Your task to perform on an android device: move a message to another label in the gmail app Image 0: 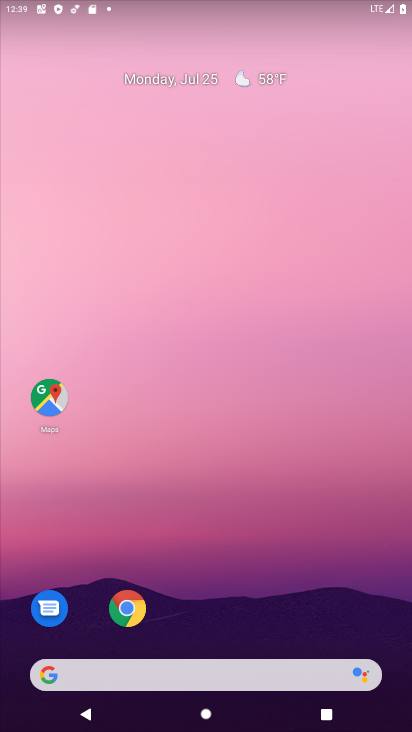
Step 0: drag from (218, 672) to (260, 0)
Your task to perform on an android device: move a message to another label in the gmail app Image 1: 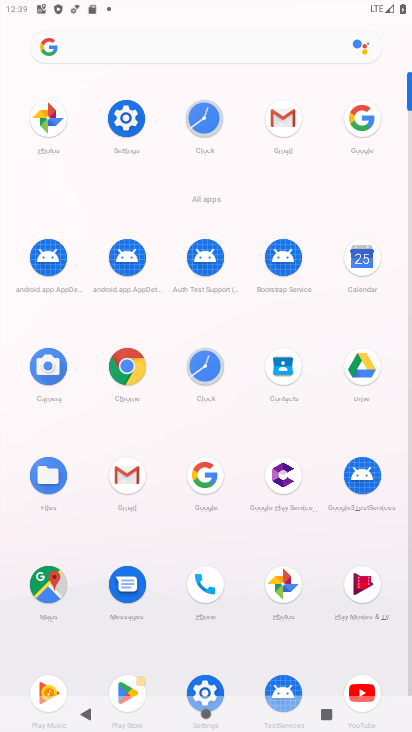
Step 1: click (283, 118)
Your task to perform on an android device: move a message to another label in the gmail app Image 2: 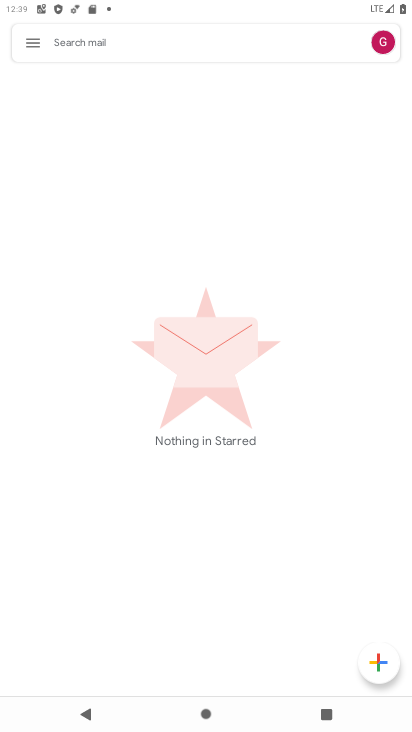
Step 2: click (30, 37)
Your task to perform on an android device: move a message to another label in the gmail app Image 3: 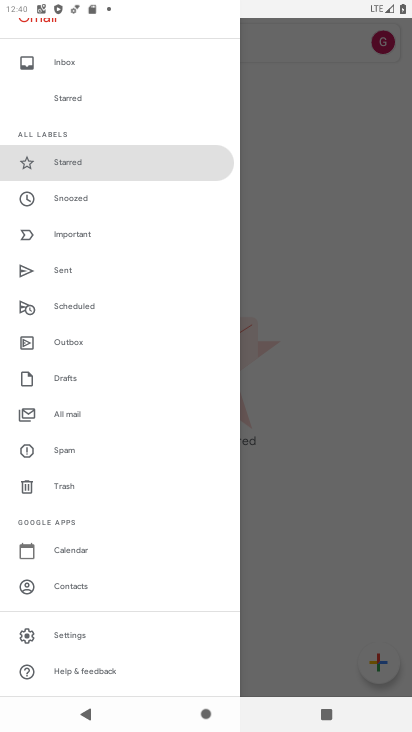
Step 3: click (70, 58)
Your task to perform on an android device: move a message to another label in the gmail app Image 4: 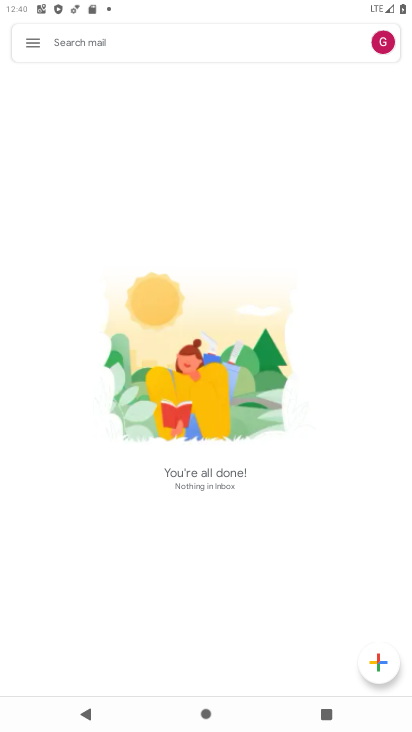
Step 4: click (33, 43)
Your task to perform on an android device: move a message to another label in the gmail app Image 5: 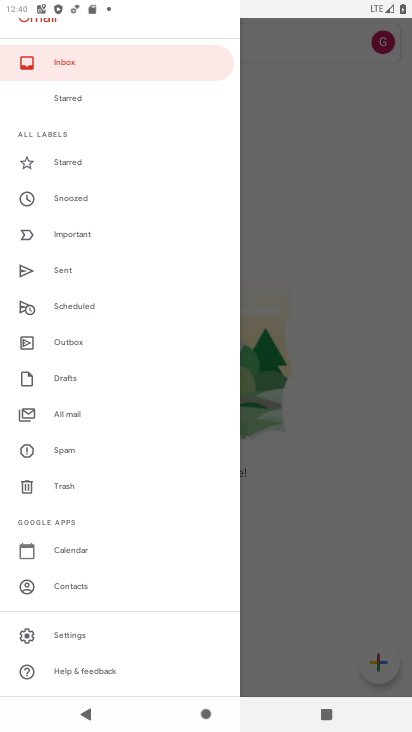
Step 5: click (57, 97)
Your task to perform on an android device: move a message to another label in the gmail app Image 6: 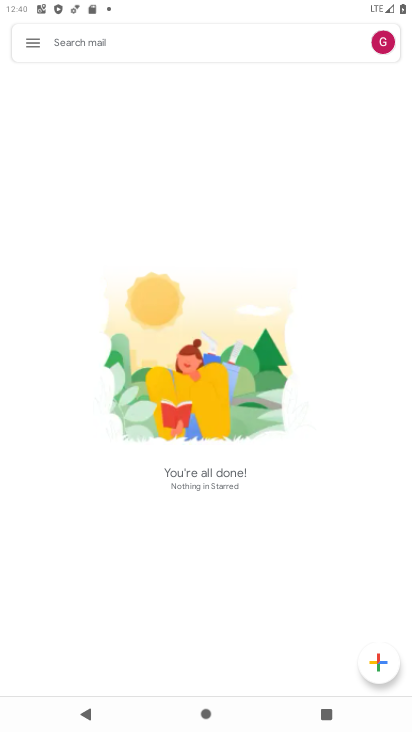
Step 6: click (29, 42)
Your task to perform on an android device: move a message to another label in the gmail app Image 7: 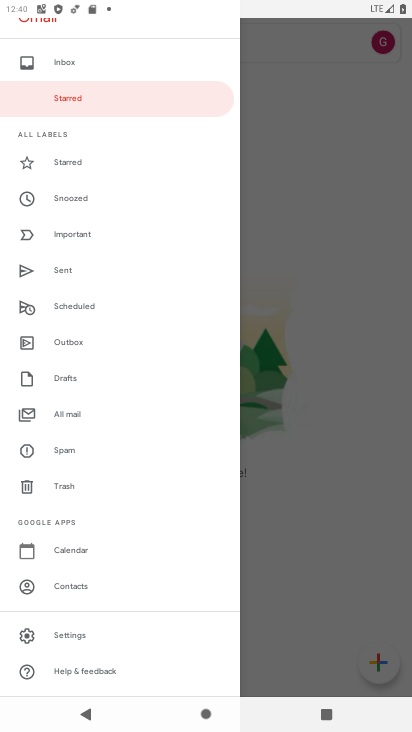
Step 7: click (66, 165)
Your task to perform on an android device: move a message to another label in the gmail app Image 8: 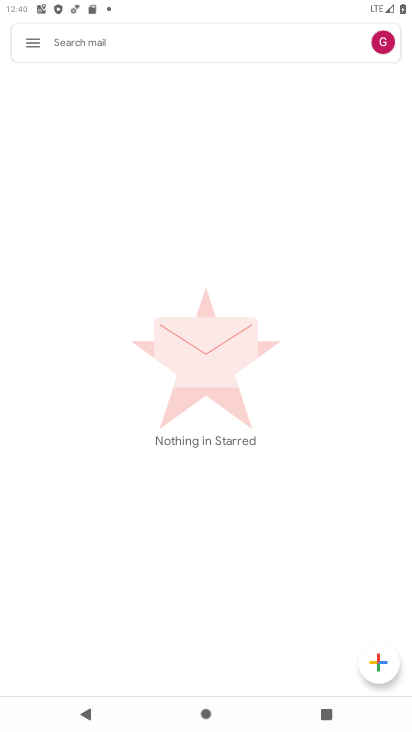
Step 8: click (33, 46)
Your task to perform on an android device: move a message to another label in the gmail app Image 9: 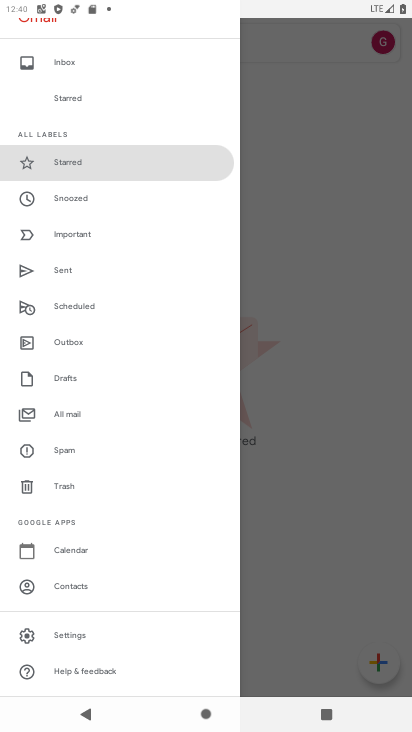
Step 9: click (71, 198)
Your task to perform on an android device: move a message to another label in the gmail app Image 10: 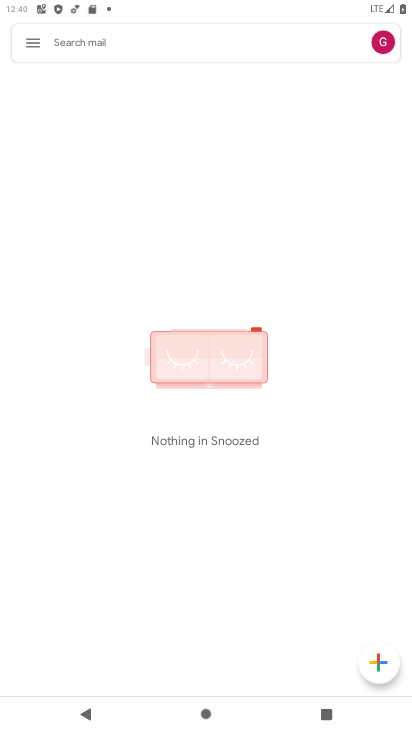
Step 10: click (36, 45)
Your task to perform on an android device: move a message to another label in the gmail app Image 11: 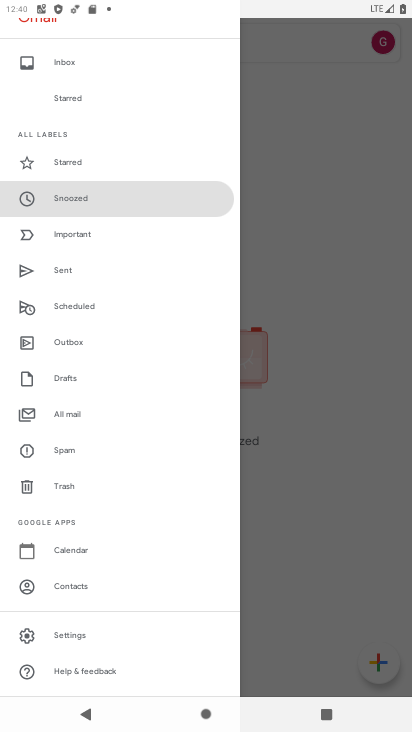
Step 11: click (79, 233)
Your task to perform on an android device: move a message to another label in the gmail app Image 12: 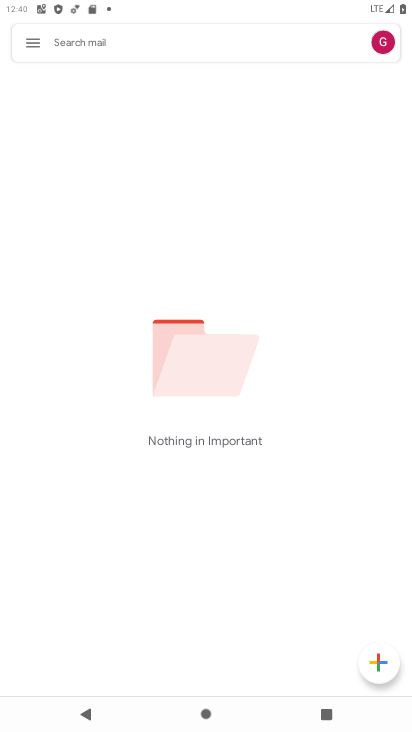
Step 12: click (33, 44)
Your task to perform on an android device: move a message to another label in the gmail app Image 13: 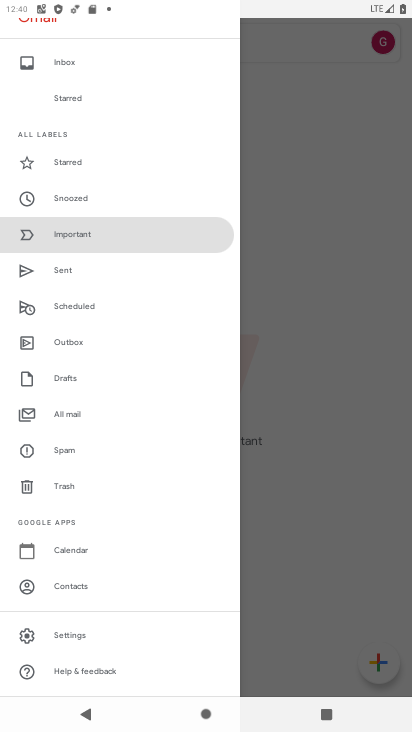
Step 13: click (58, 269)
Your task to perform on an android device: move a message to another label in the gmail app Image 14: 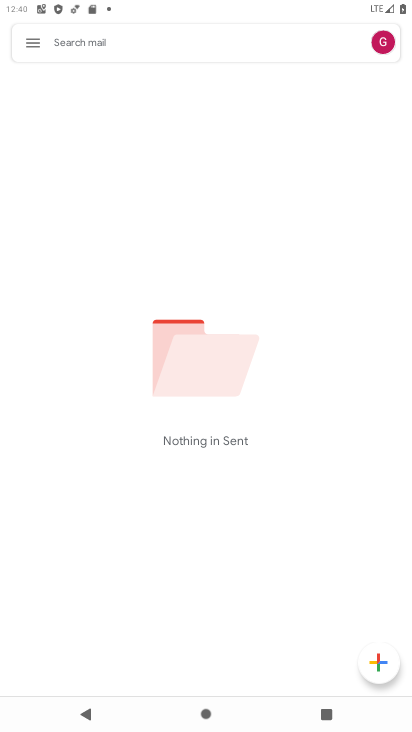
Step 14: click (33, 46)
Your task to perform on an android device: move a message to another label in the gmail app Image 15: 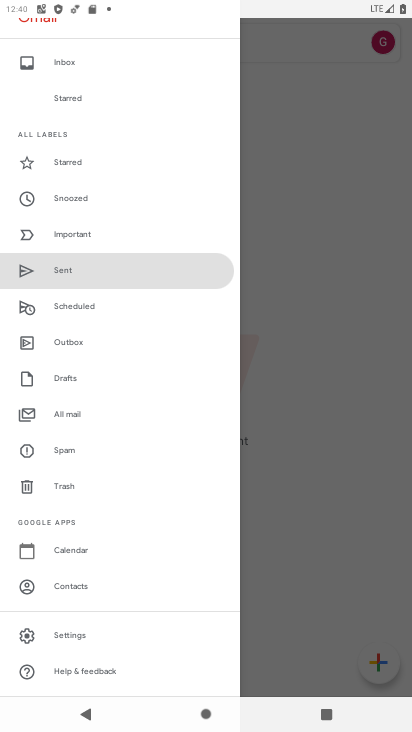
Step 15: click (71, 307)
Your task to perform on an android device: move a message to another label in the gmail app Image 16: 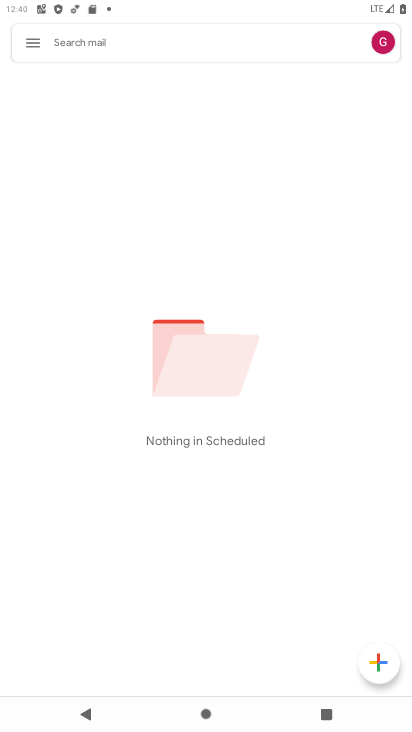
Step 16: click (33, 45)
Your task to perform on an android device: move a message to another label in the gmail app Image 17: 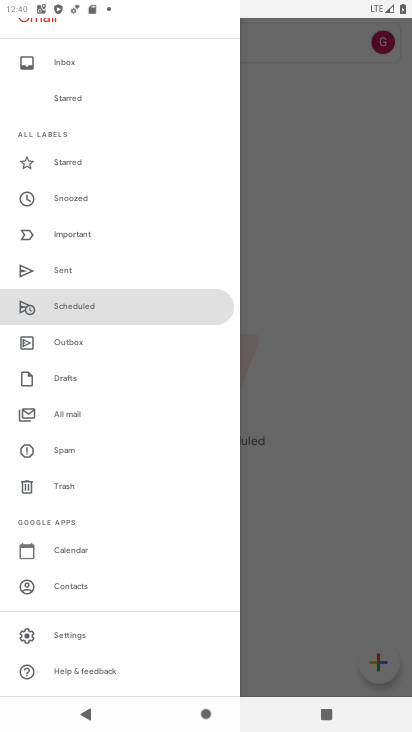
Step 17: click (64, 342)
Your task to perform on an android device: move a message to another label in the gmail app Image 18: 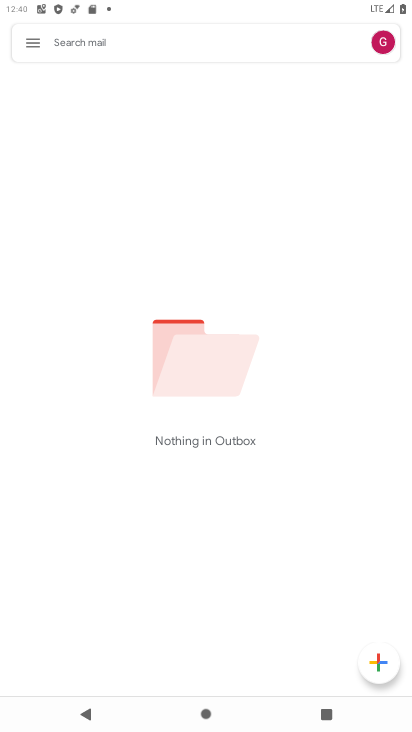
Step 18: click (38, 44)
Your task to perform on an android device: move a message to another label in the gmail app Image 19: 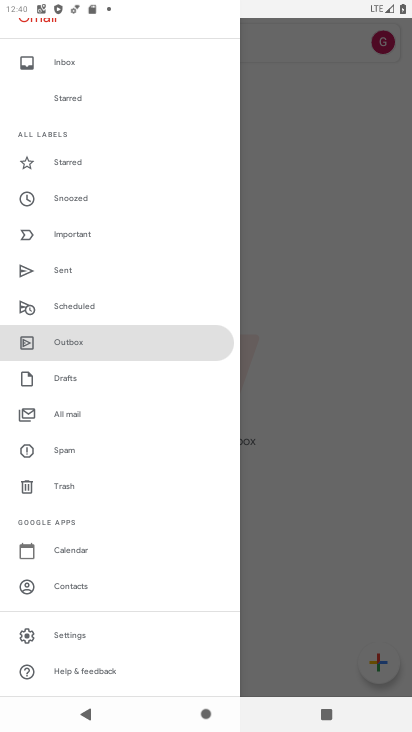
Step 19: click (61, 378)
Your task to perform on an android device: move a message to another label in the gmail app Image 20: 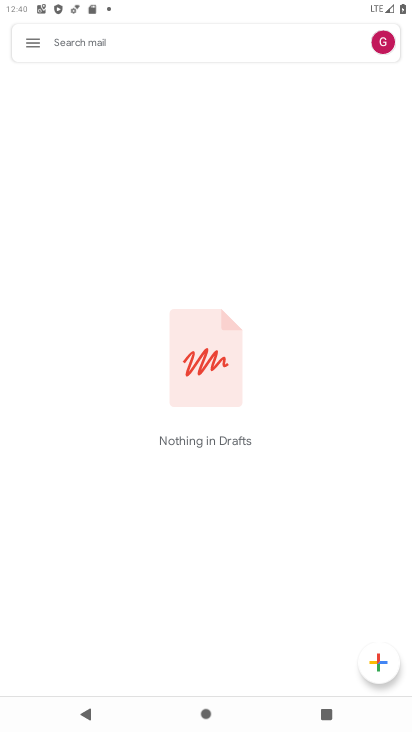
Step 20: click (33, 44)
Your task to perform on an android device: move a message to another label in the gmail app Image 21: 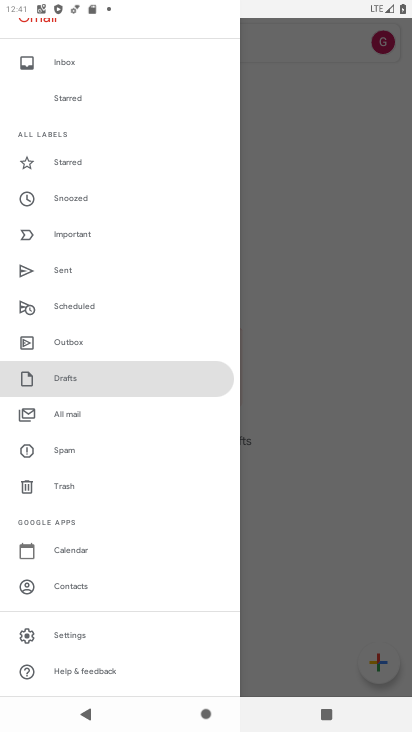
Step 21: click (62, 412)
Your task to perform on an android device: move a message to another label in the gmail app Image 22: 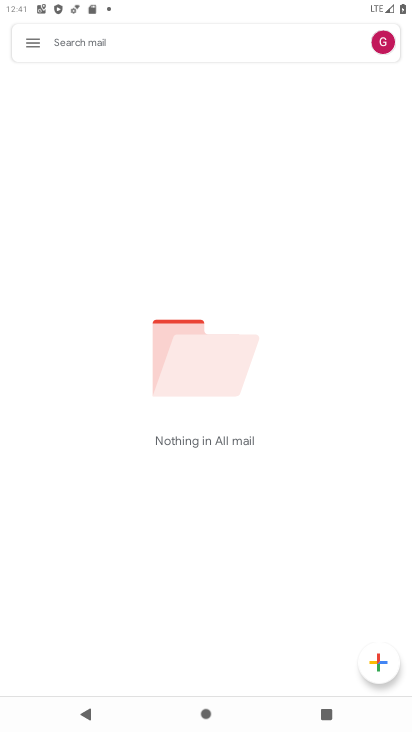
Step 22: click (34, 42)
Your task to perform on an android device: move a message to another label in the gmail app Image 23: 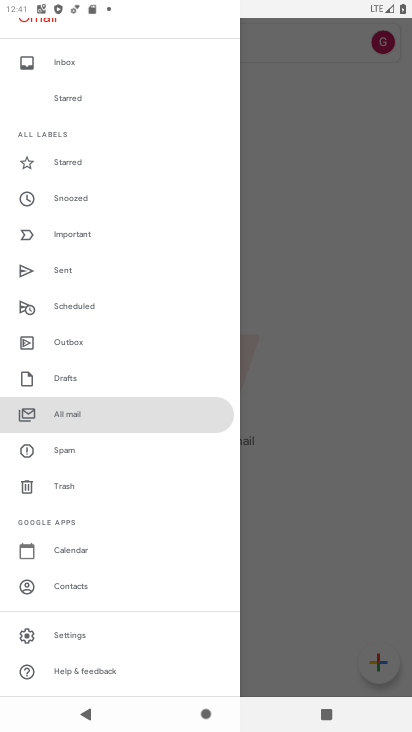
Step 23: click (60, 447)
Your task to perform on an android device: move a message to another label in the gmail app Image 24: 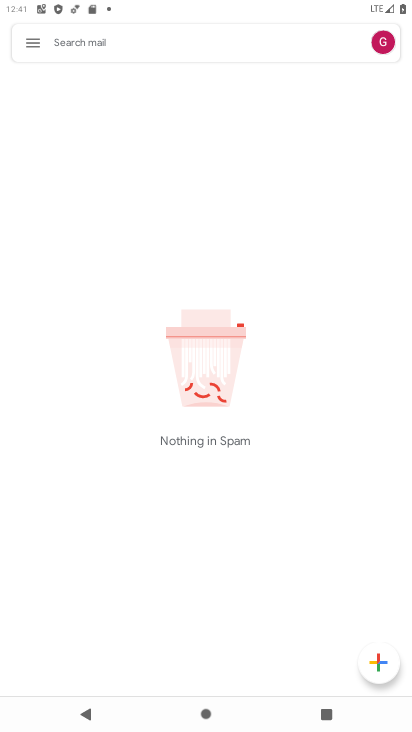
Step 24: click (32, 42)
Your task to perform on an android device: move a message to another label in the gmail app Image 25: 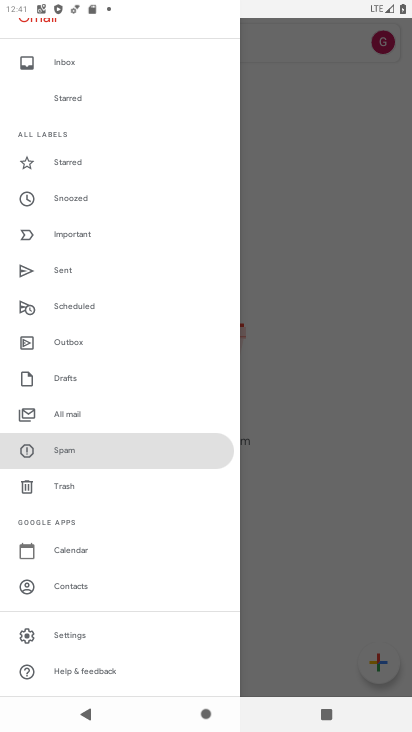
Step 25: click (75, 480)
Your task to perform on an android device: move a message to another label in the gmail app Image 26: 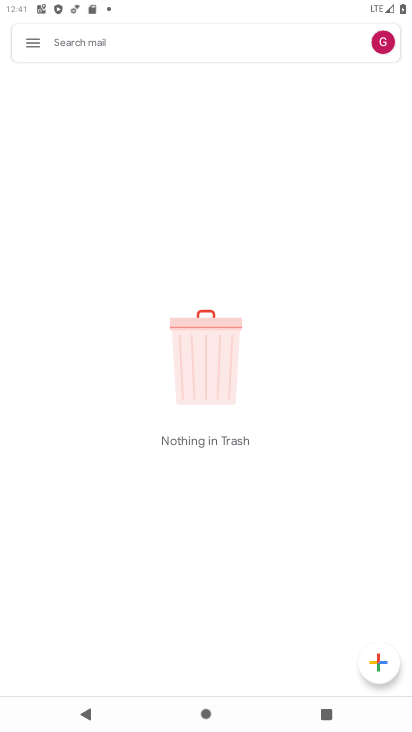
Step 26: task complete